Your task to perform on an android device: check out phone information Image 0: 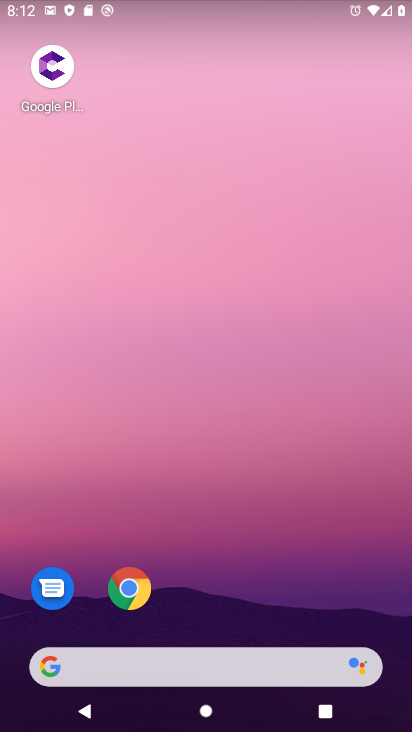
Step 0: drag from (242, 511) to (280, 190)
Your task to perform on an android device: check out phone information Image 1: 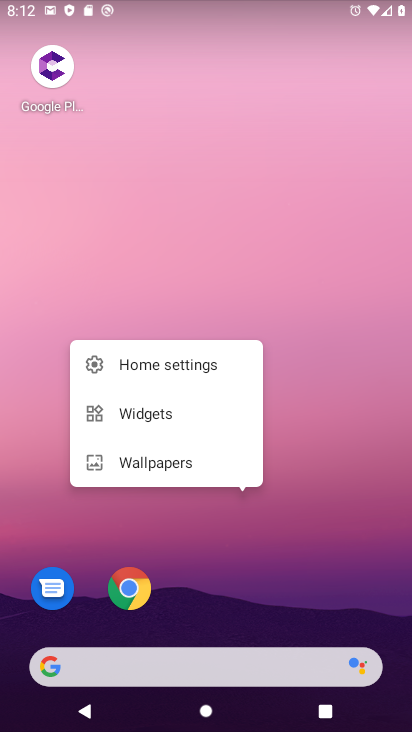
Step 1: click (334, 572)
Your task to perform on an android device: check out phone information Image 2: 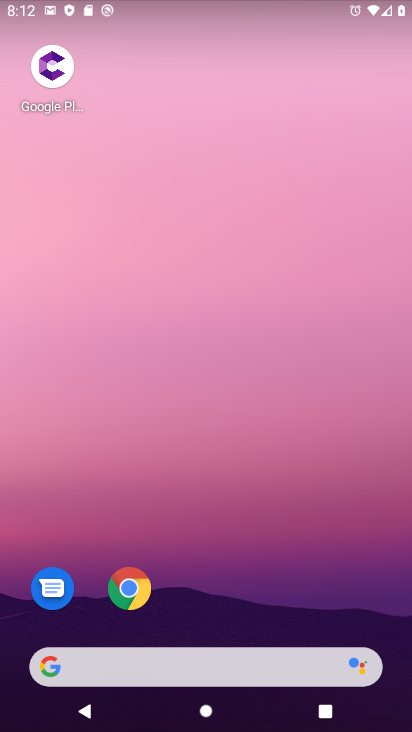
Step 2: drag from (282, 651) to (297, 151)
Your task to perform on an android device: check out phone information Image 3: 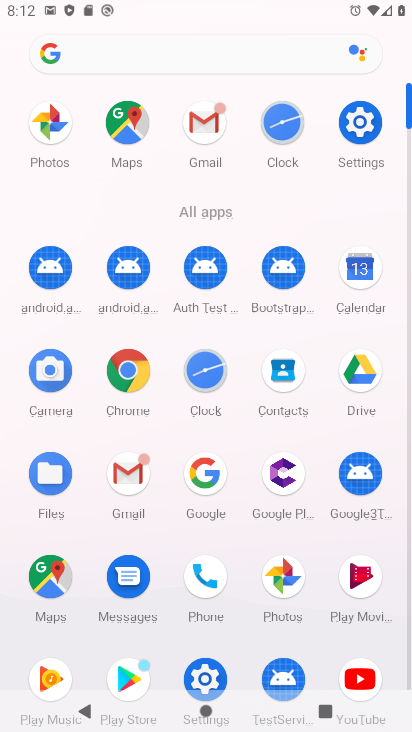
Step 3: click (366, 130)
Your task to perform on an android device: check out phone information Image 4: 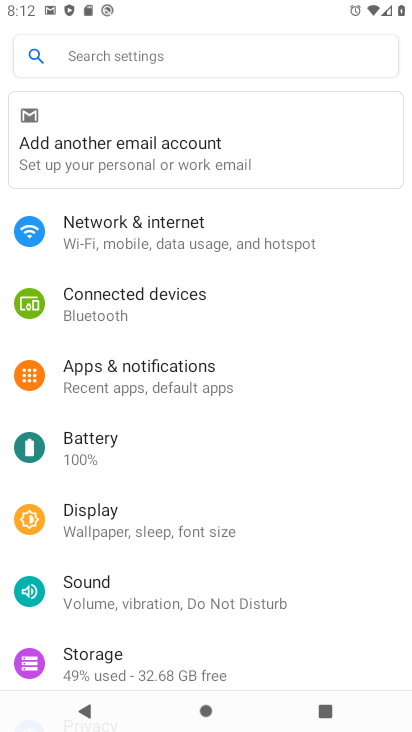
Step 4: click (152, 66)
Your task to perform on an android device: check out phone information Image 5: 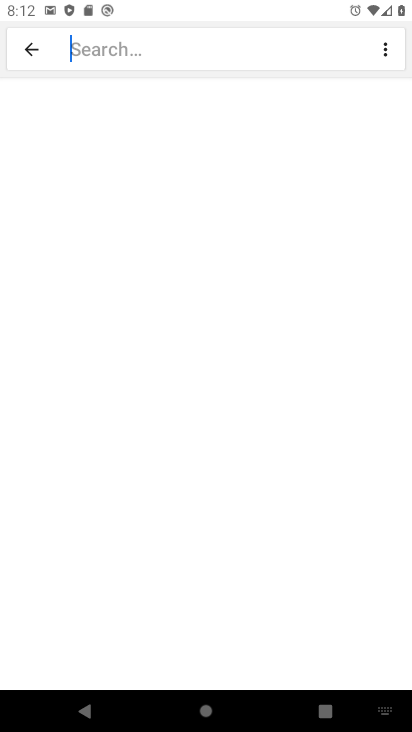
Step 5: click (377, 715)
Your task to perform on an android device: check out phone information Image 6: 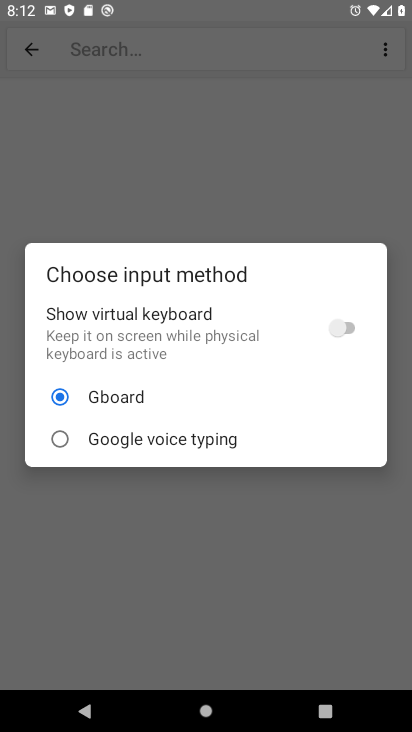
Step 6: click (342, 321)
Your task to perform on an android device: check out phone information Image 7: 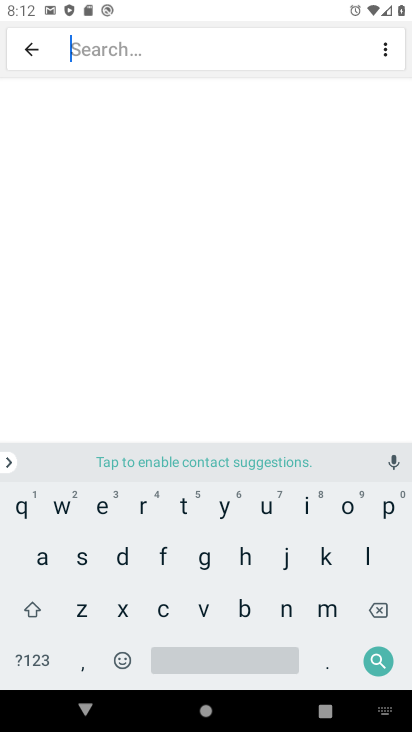
Step 7: click (40, 555)
Your task to perform on an android device: check out phone information Image 8: 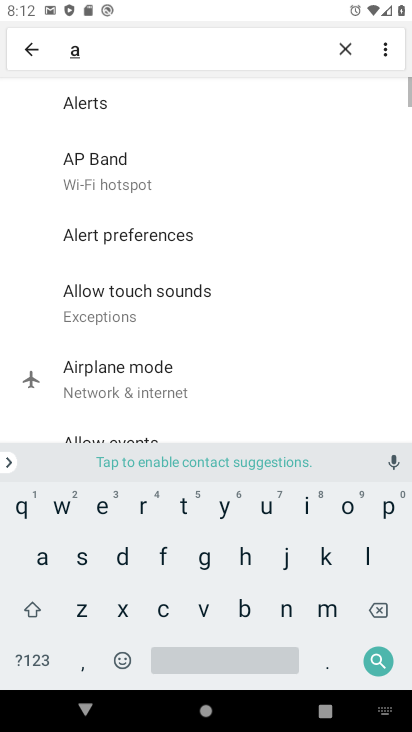
Step 8: click (245, 613)
Your task to perform on an android device: check out phone information Image 9: 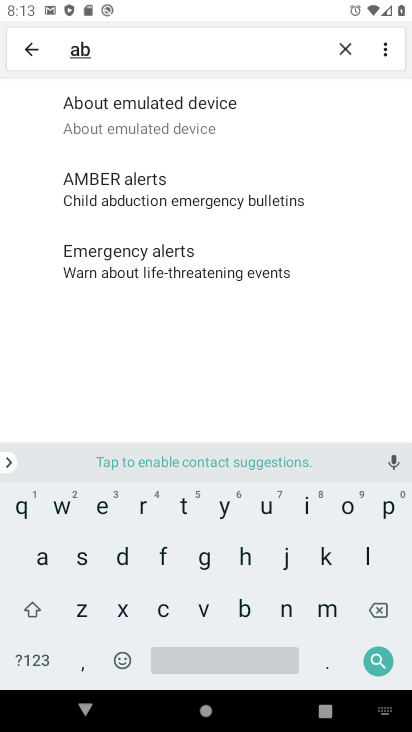
Step 9: click (128, 119)
Your task to perform on an android device: check out phone information Image 10: 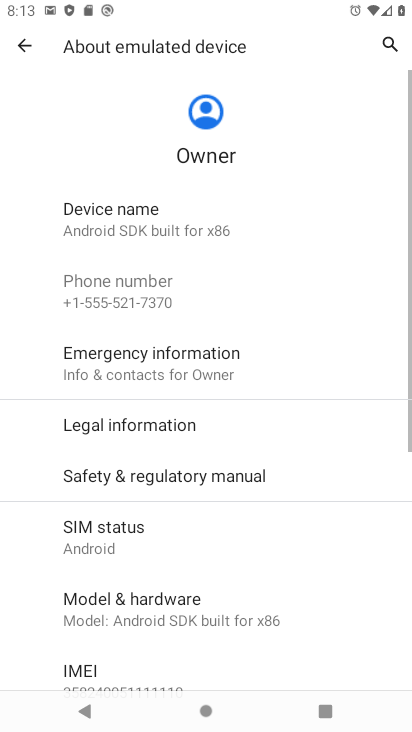
Step 10: task complete